Your task to perform on an android device: empty trash in the gmail app Image 0: 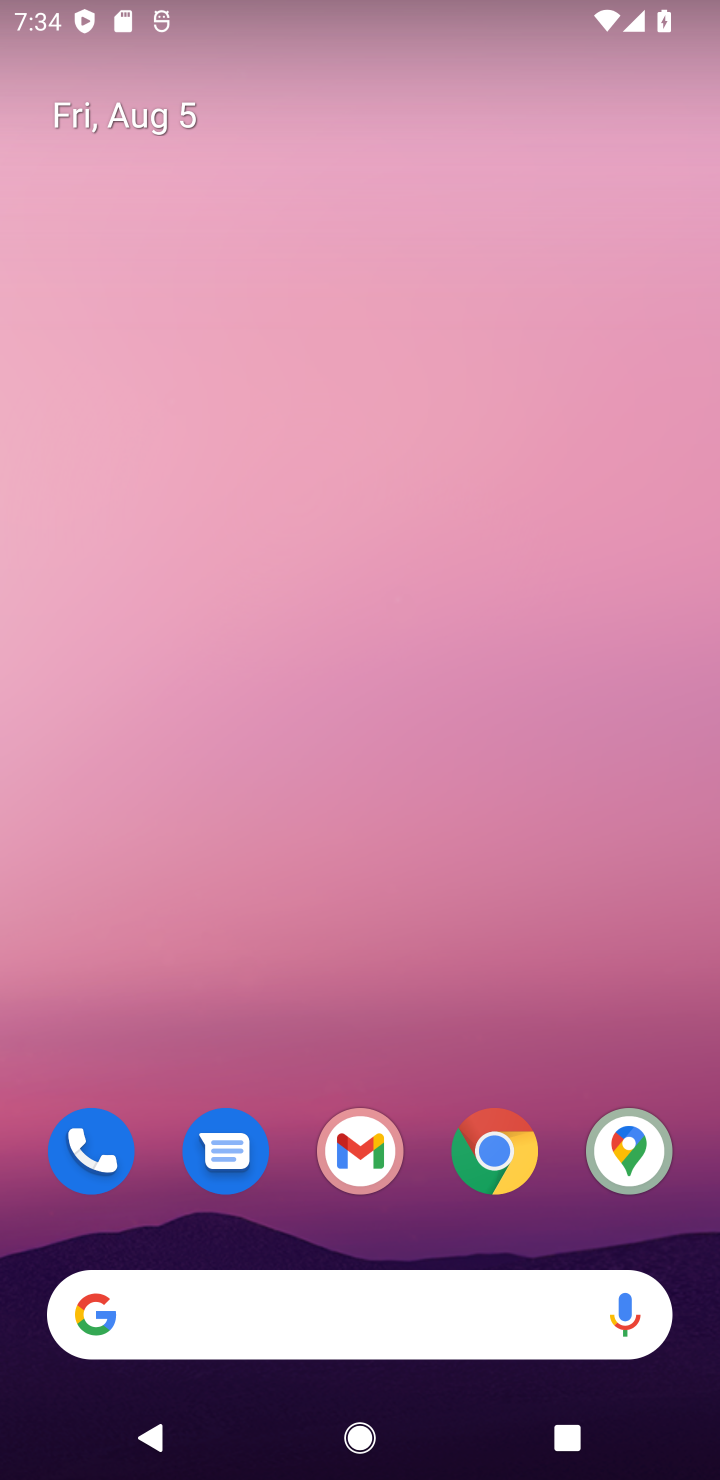
Step 0: drag from (331, 194) to (331, 128)
Your task to perform on an android device: empty trash in the gmail app Image 1: 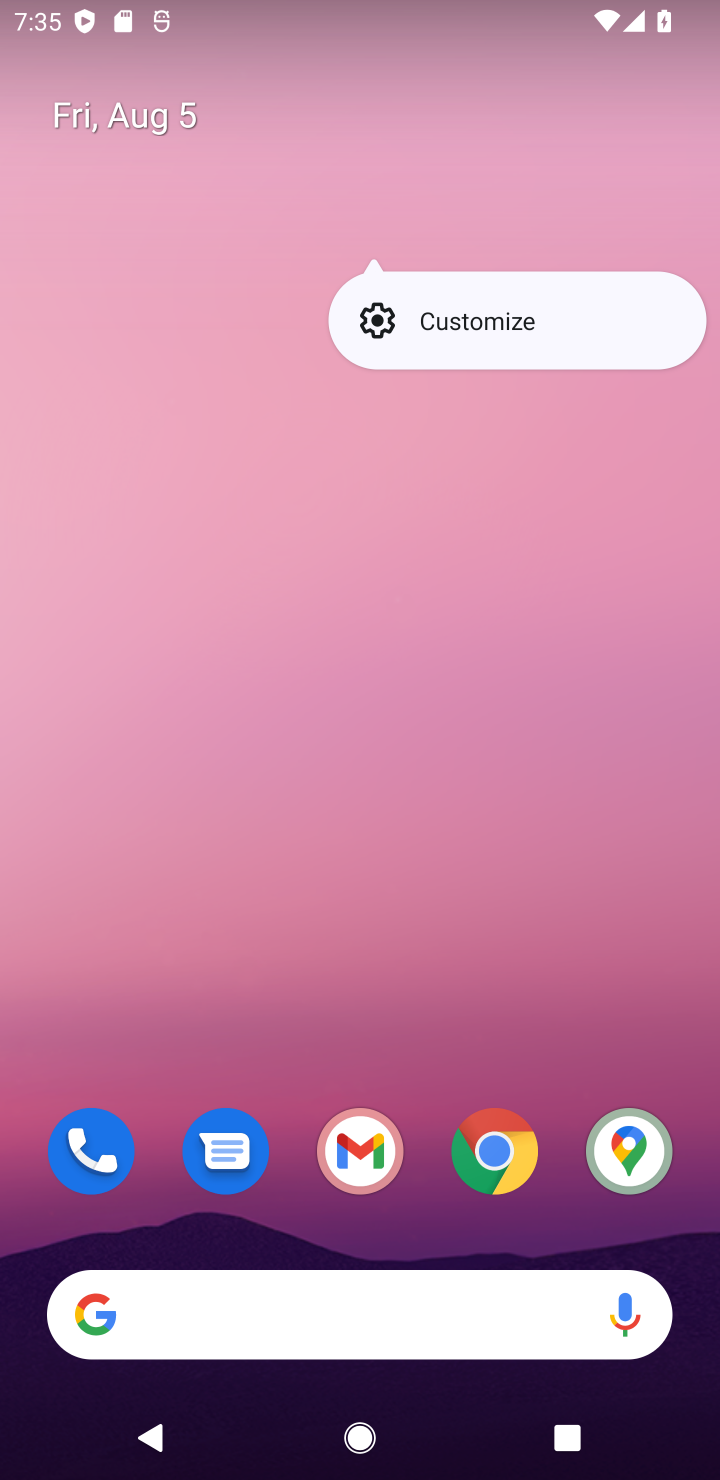
Step 1: drag from (336, 1265) to (223, 251)
Your task to perform on an android device: empty trash in the gmail app Image 2: 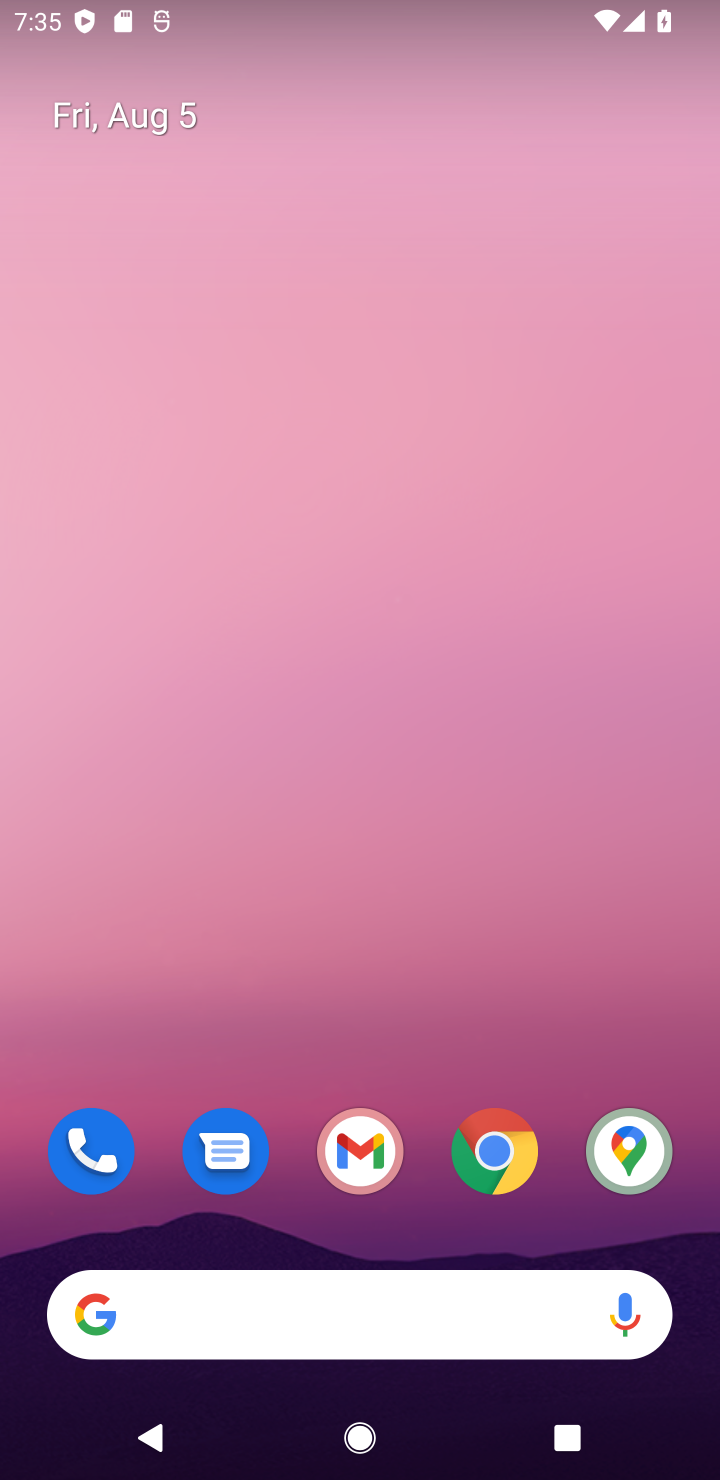
Step 2: click (370, 1186)
Your task to perform on an android device: empty trash in the gmail app Image 3: 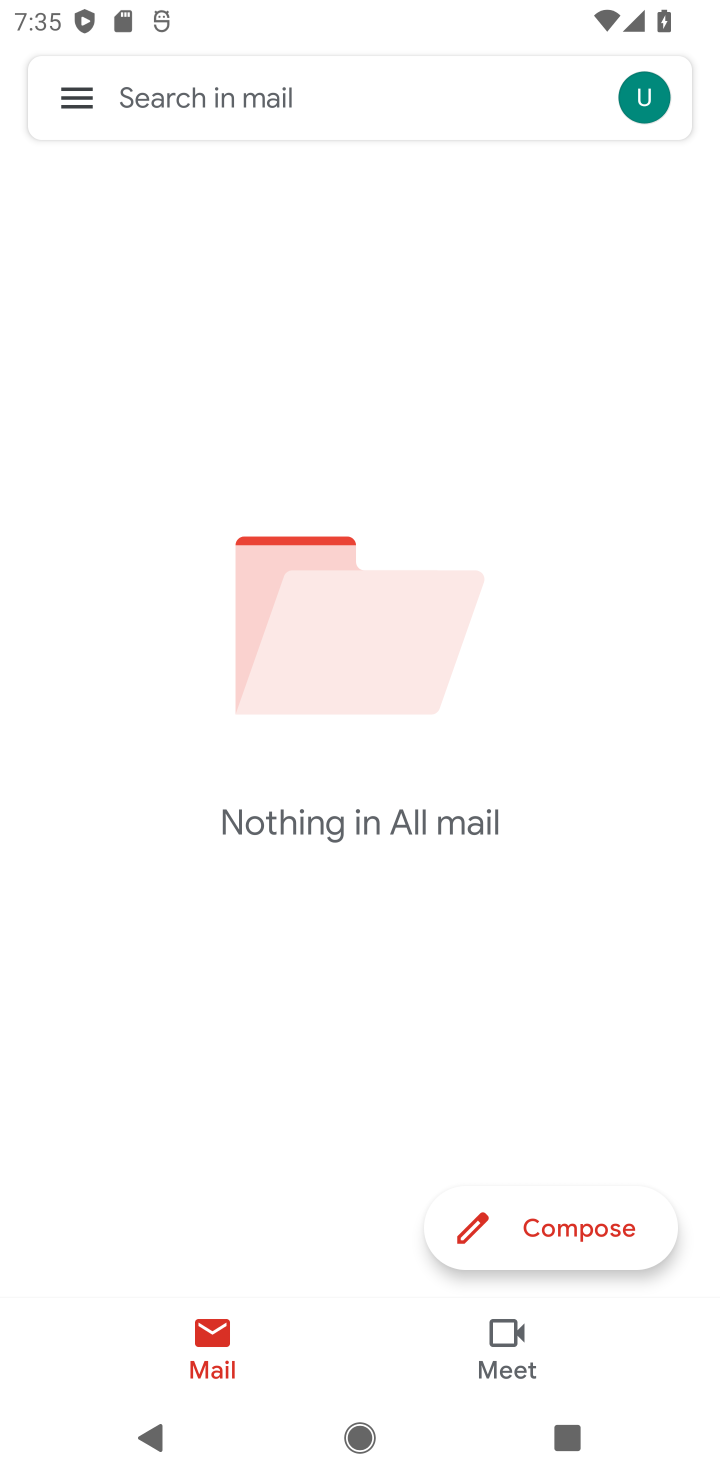
Step 3: click (63, 96)
Your task to perform on an android device: empty trash in the gmail app Image 4: 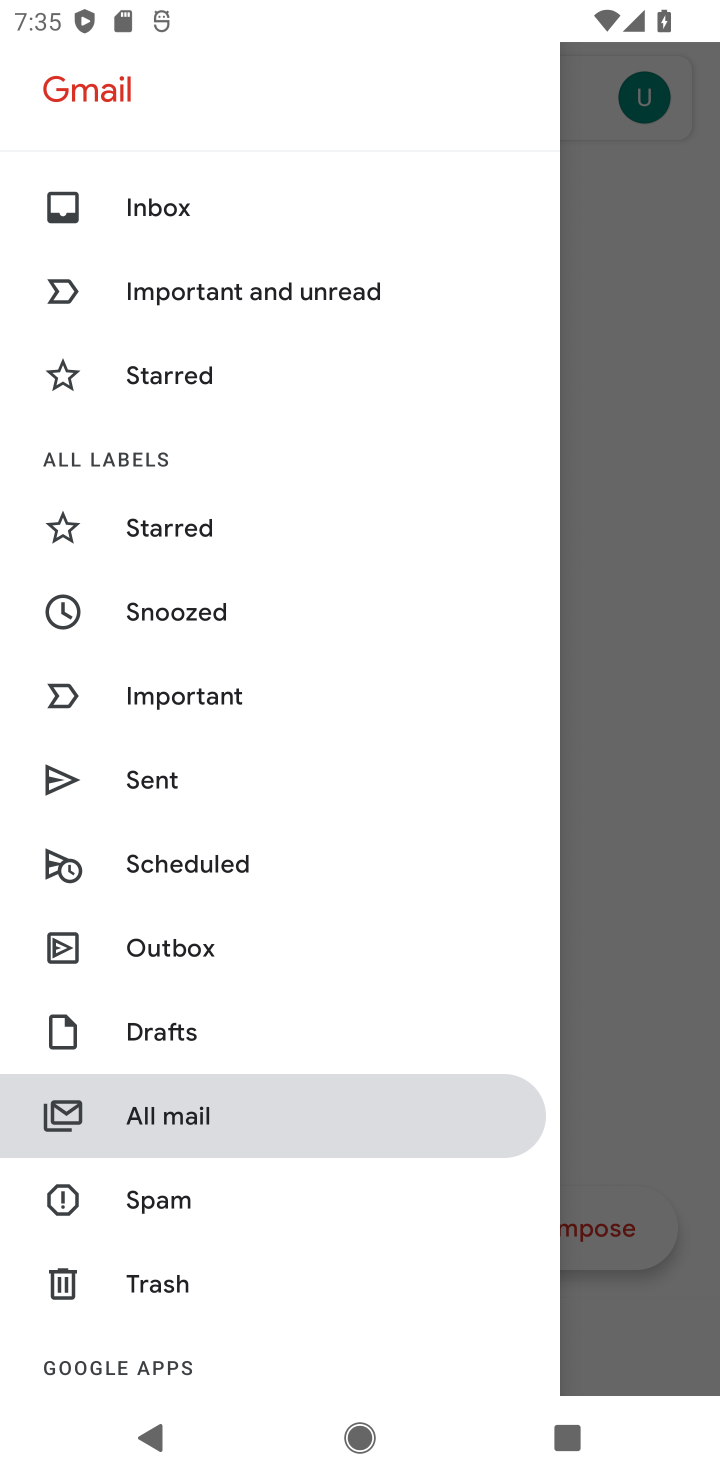
Step 4: click (209, 1276)
Your task to perform on an android device: empty trash in the gmail app Image 5: 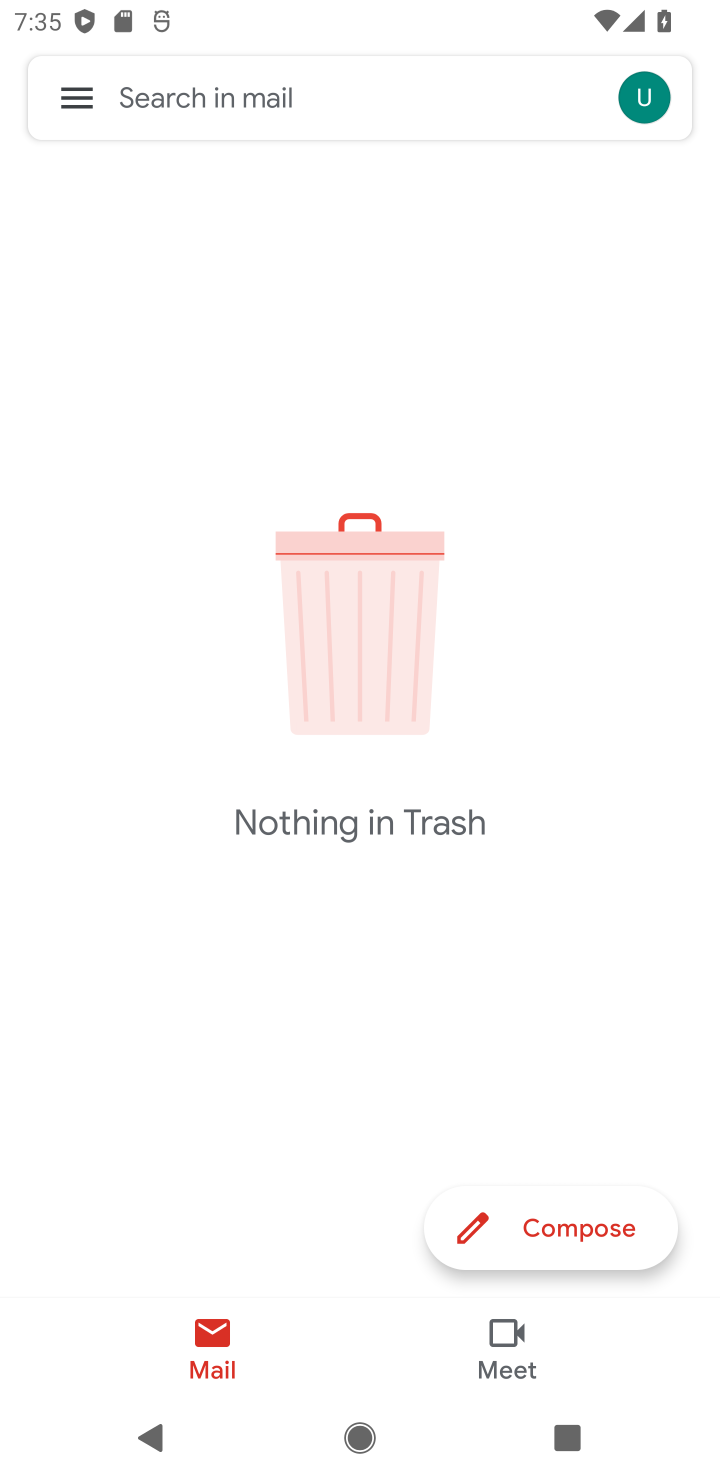
Step 5: task complete